Your task to perform on an android device: Install the Starbucks app Image 0: 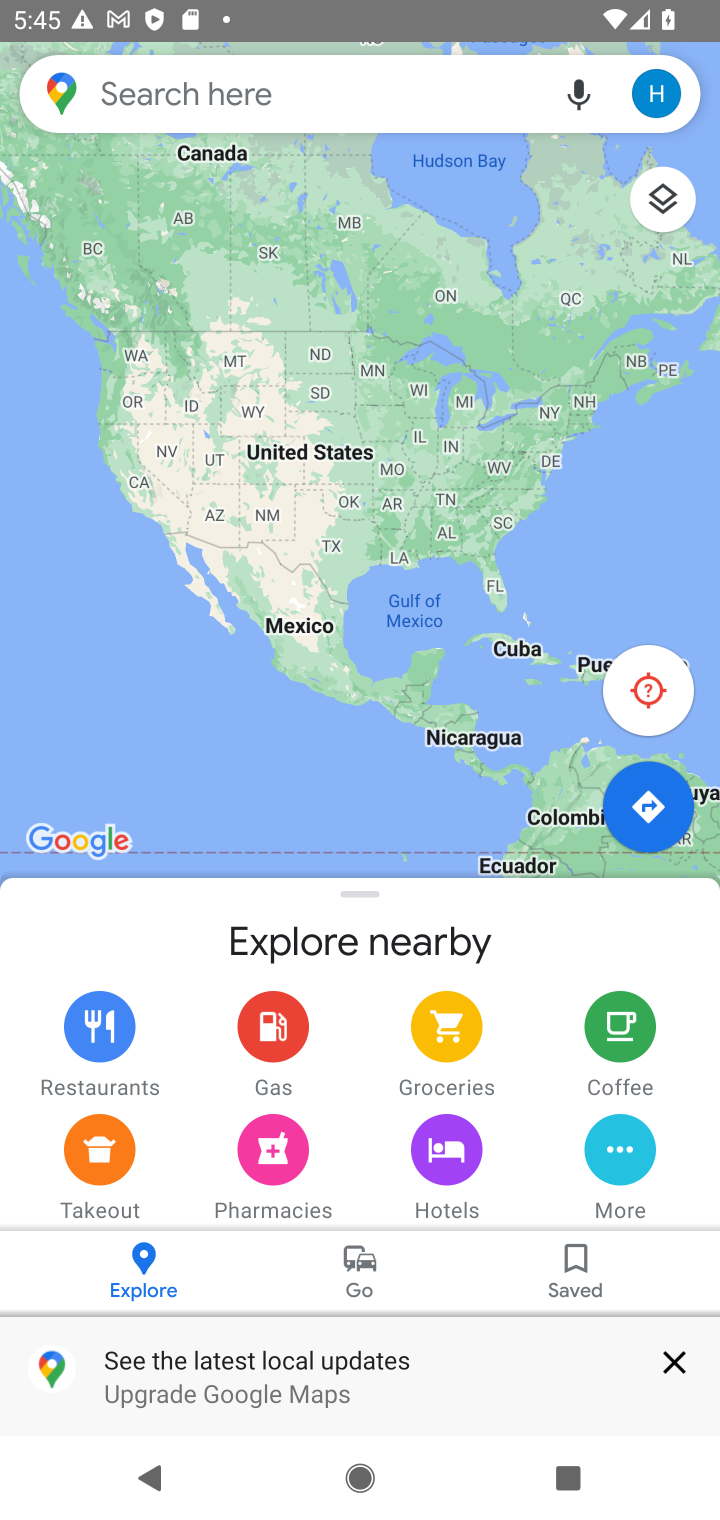
Step 0: press home button
Your task to perform on an android device: Install the Starbucks app Image 1: 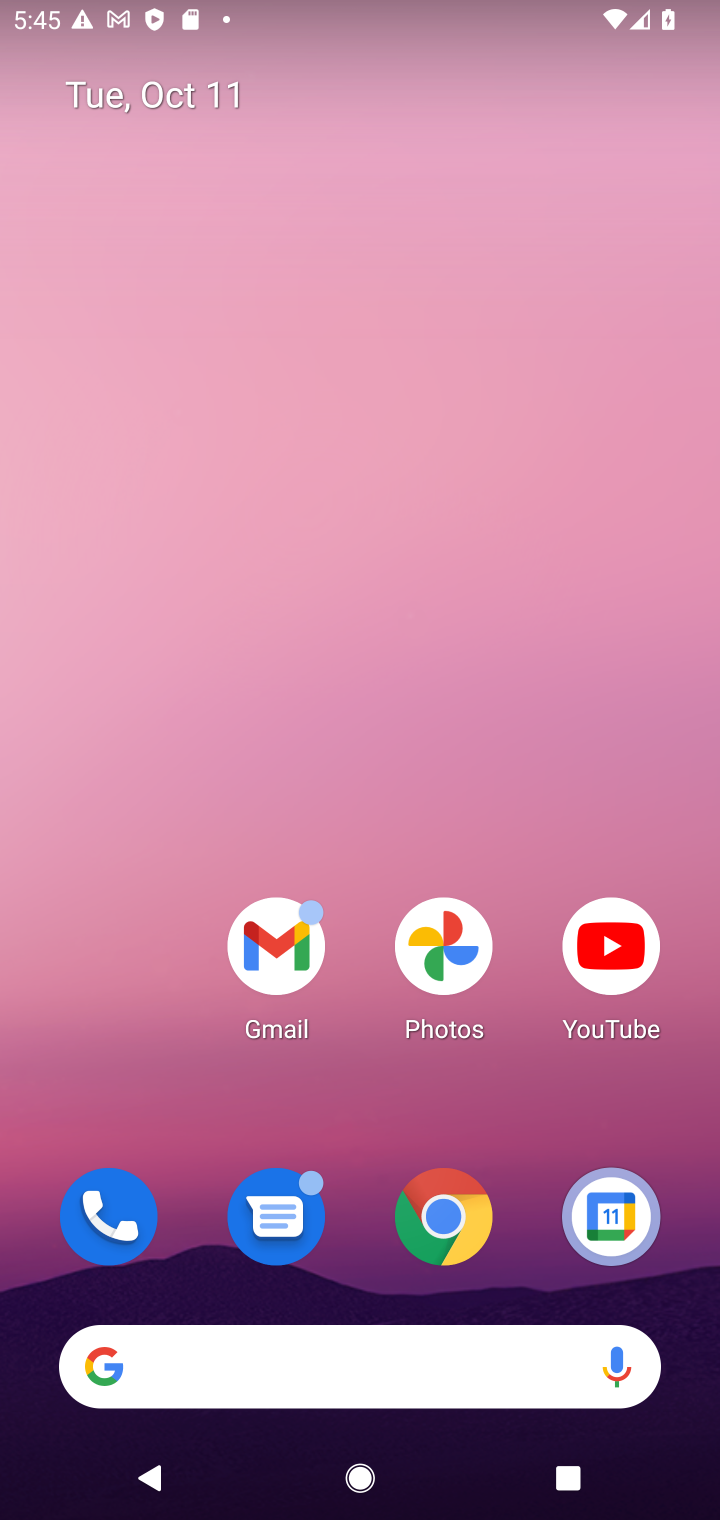
Step 1: drag from (447, 1320) to (314, 235)
Your task to perform on an android device: Install the Starbucks app Image 2: 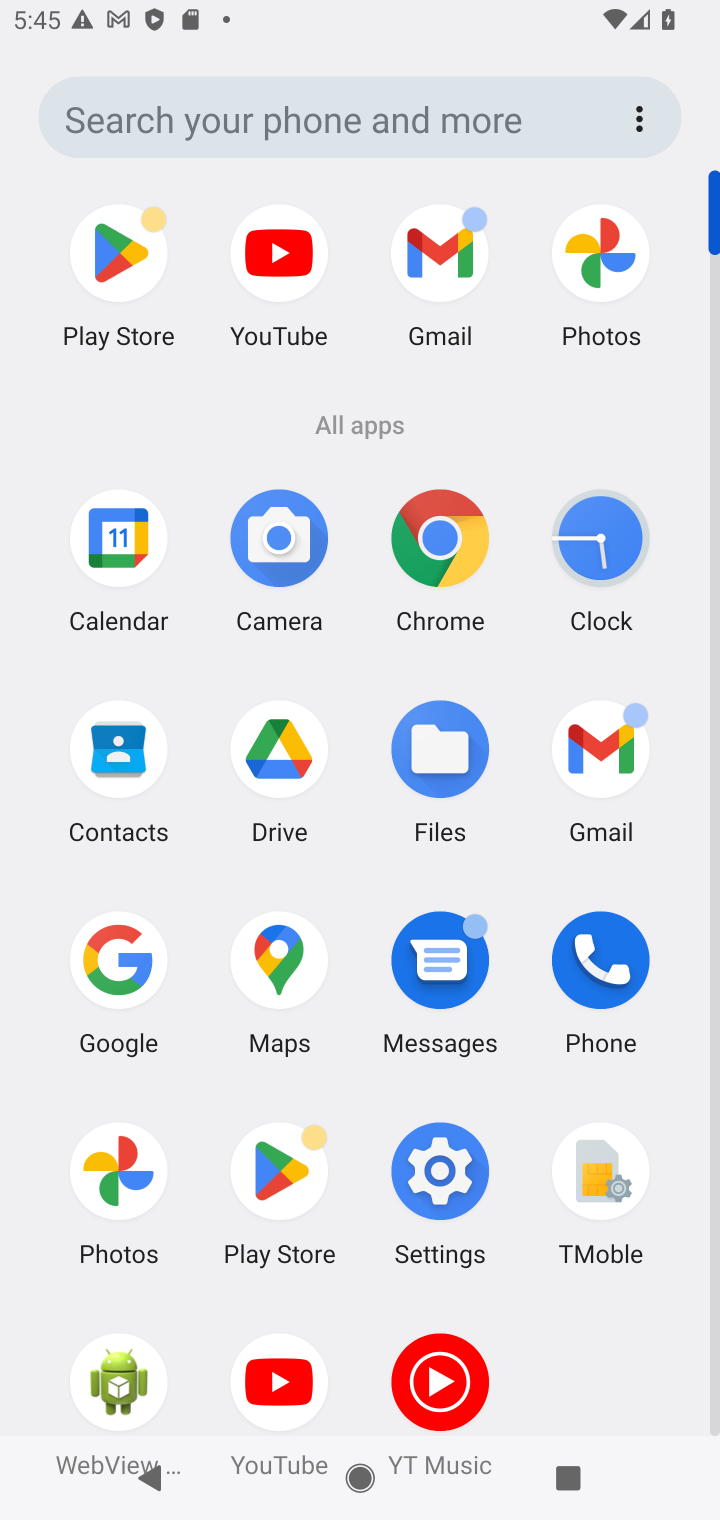
Step 2: click (285, 1175)
Your task to perform on an android device: Install the Starbucks app Image 3: 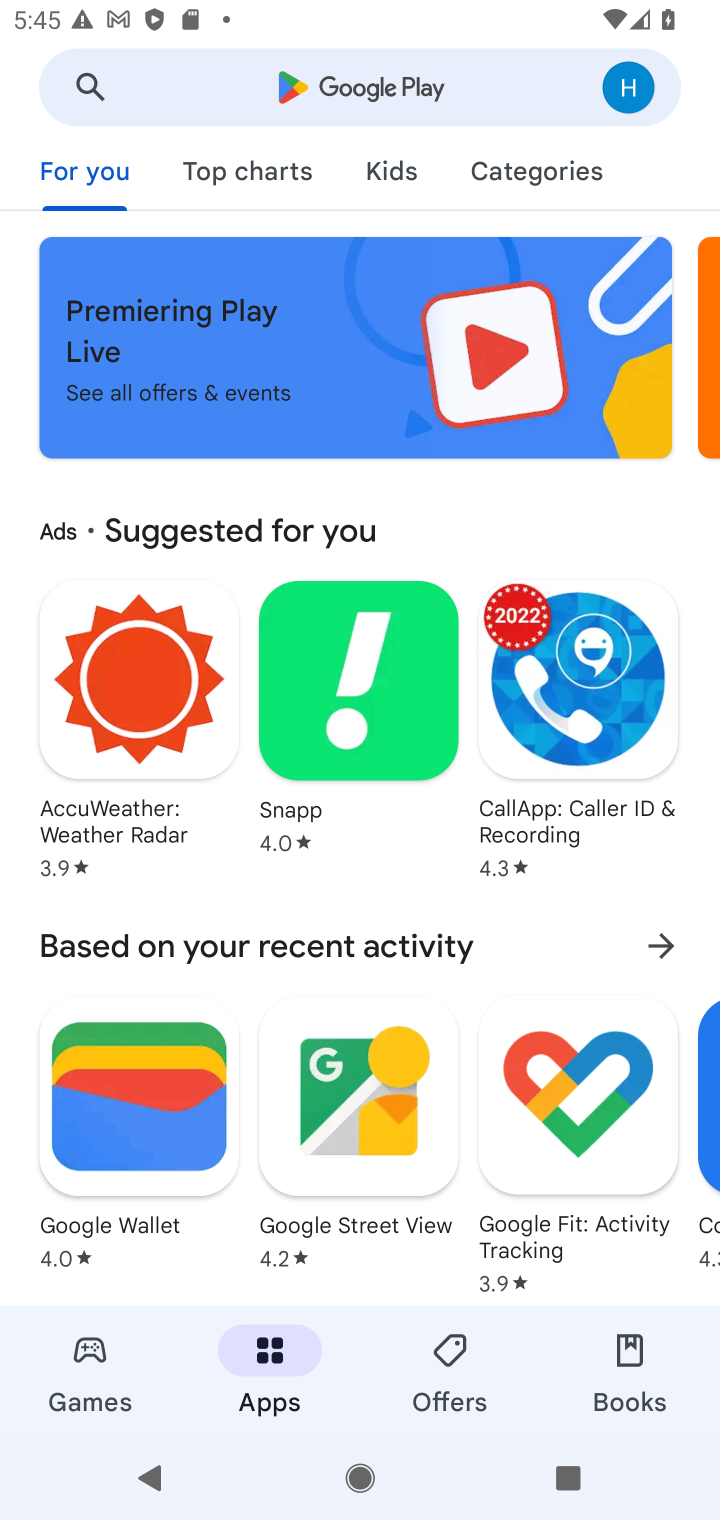
Step 3: click (330, 100)
Your task to perform on an android device: Install the Starbucks app Image 4: 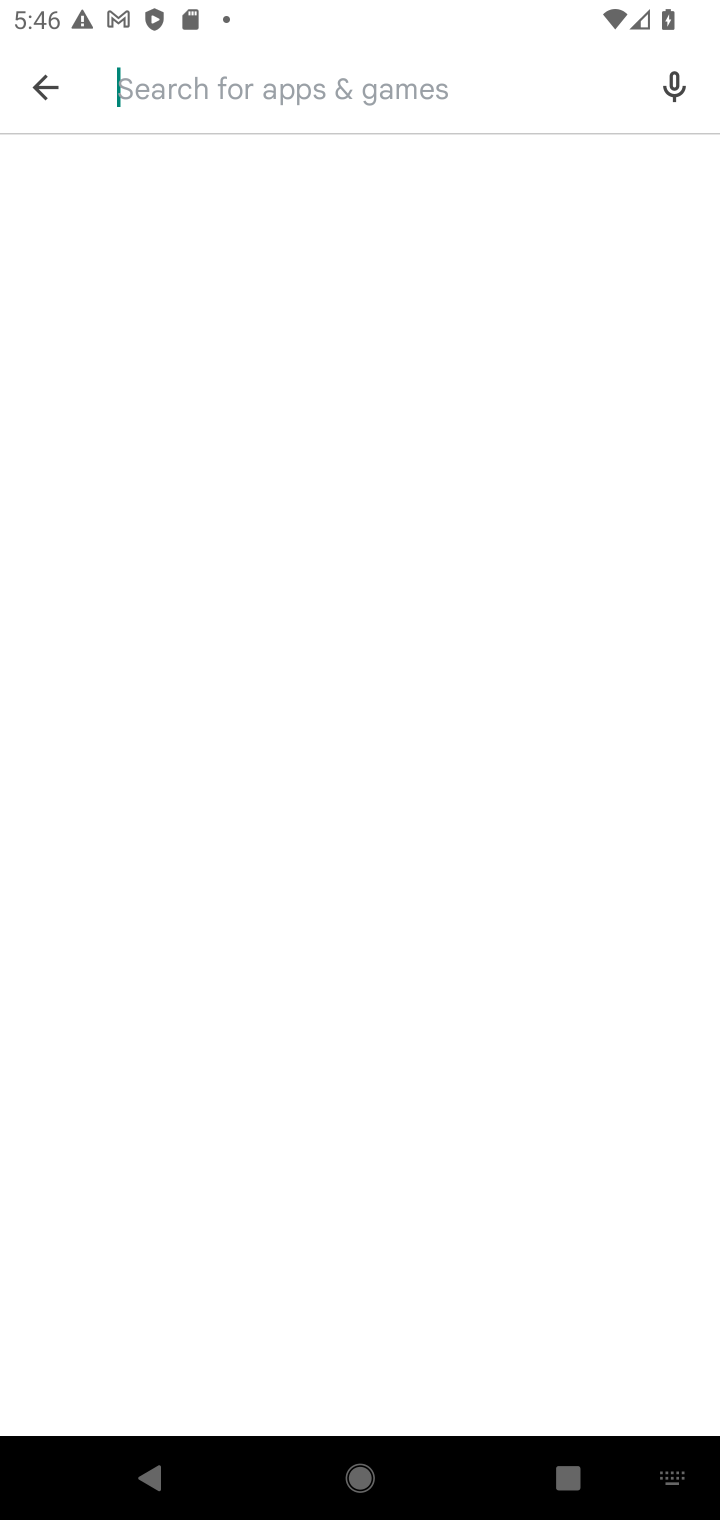
Step 4: type "Starbucks app"
Your task to perform on an android device: Install the Starbucks app Image 5: 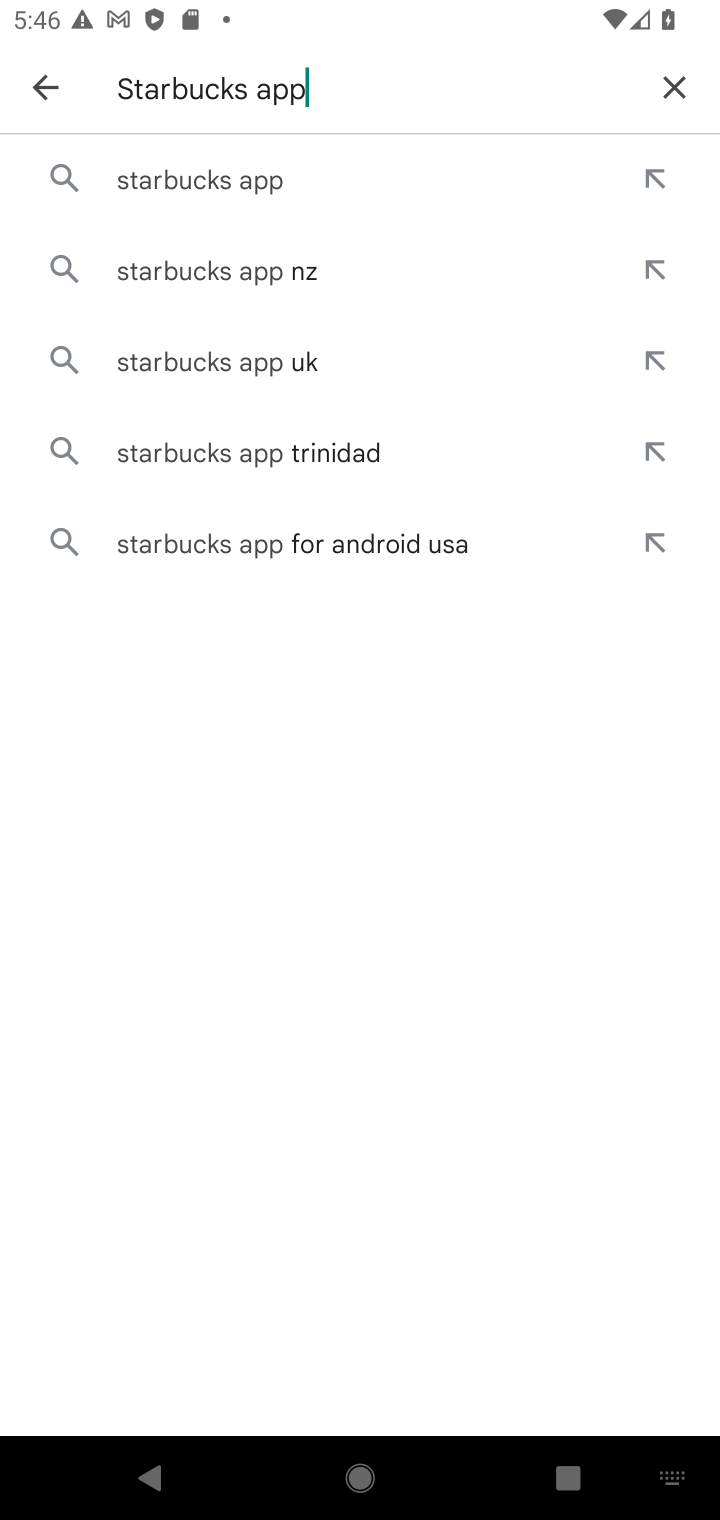
Step 5: click (219, 190)
Your task to perform on an android device: Install the Starbucks app Image 6: 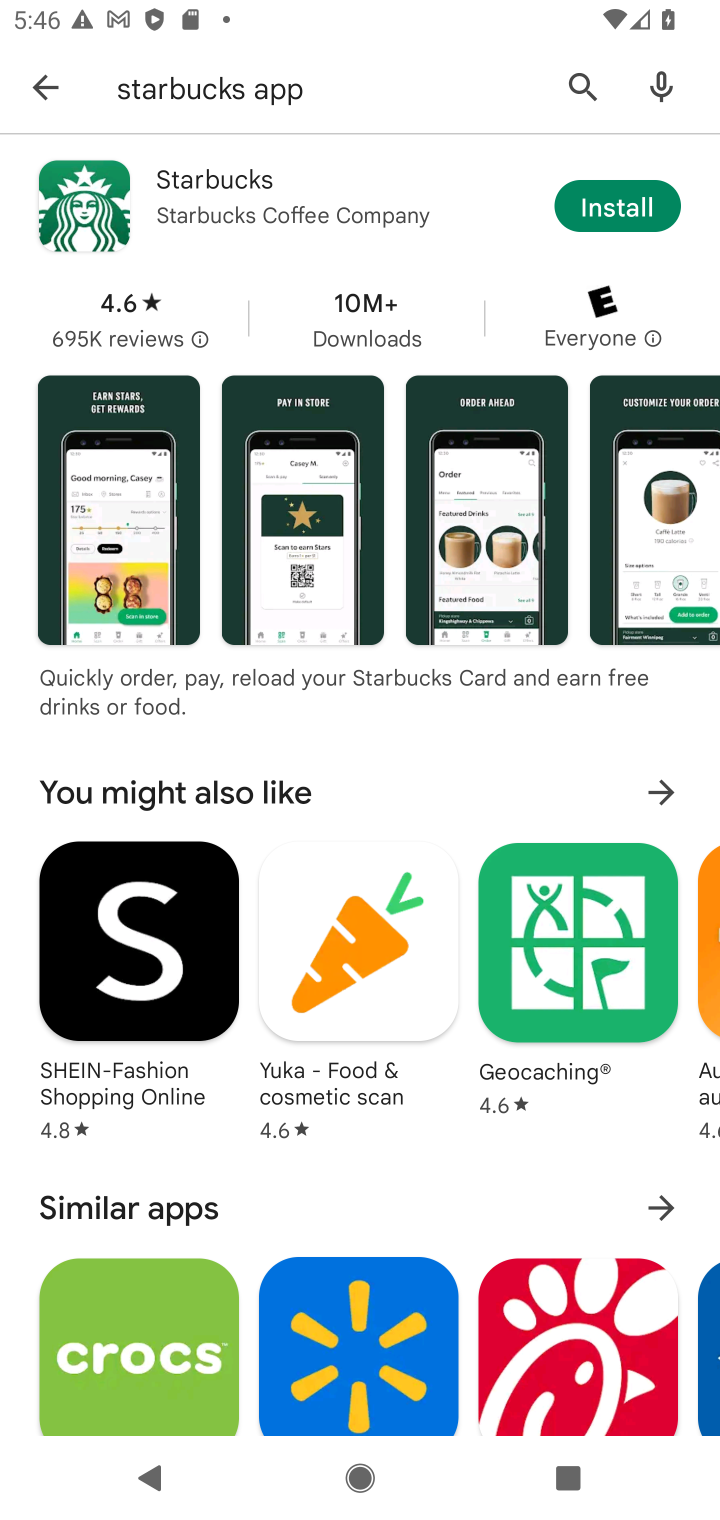
Step 6: click (616, 206)
Your task to perform on an android device: Install the Starbucks app Image 7: 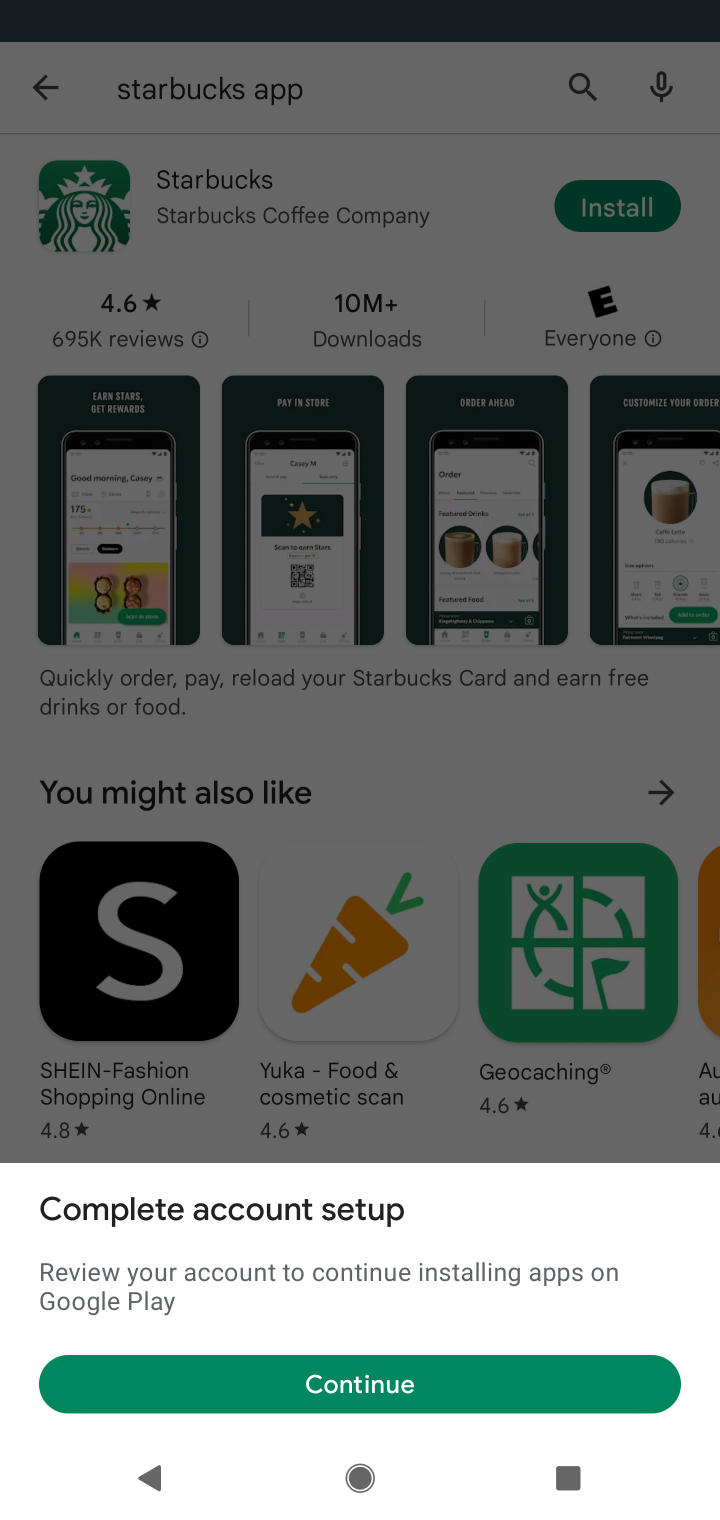
Step 7: click (311, 1378)
Your task to perform on an android device: Install the Starbucks app Image 8: 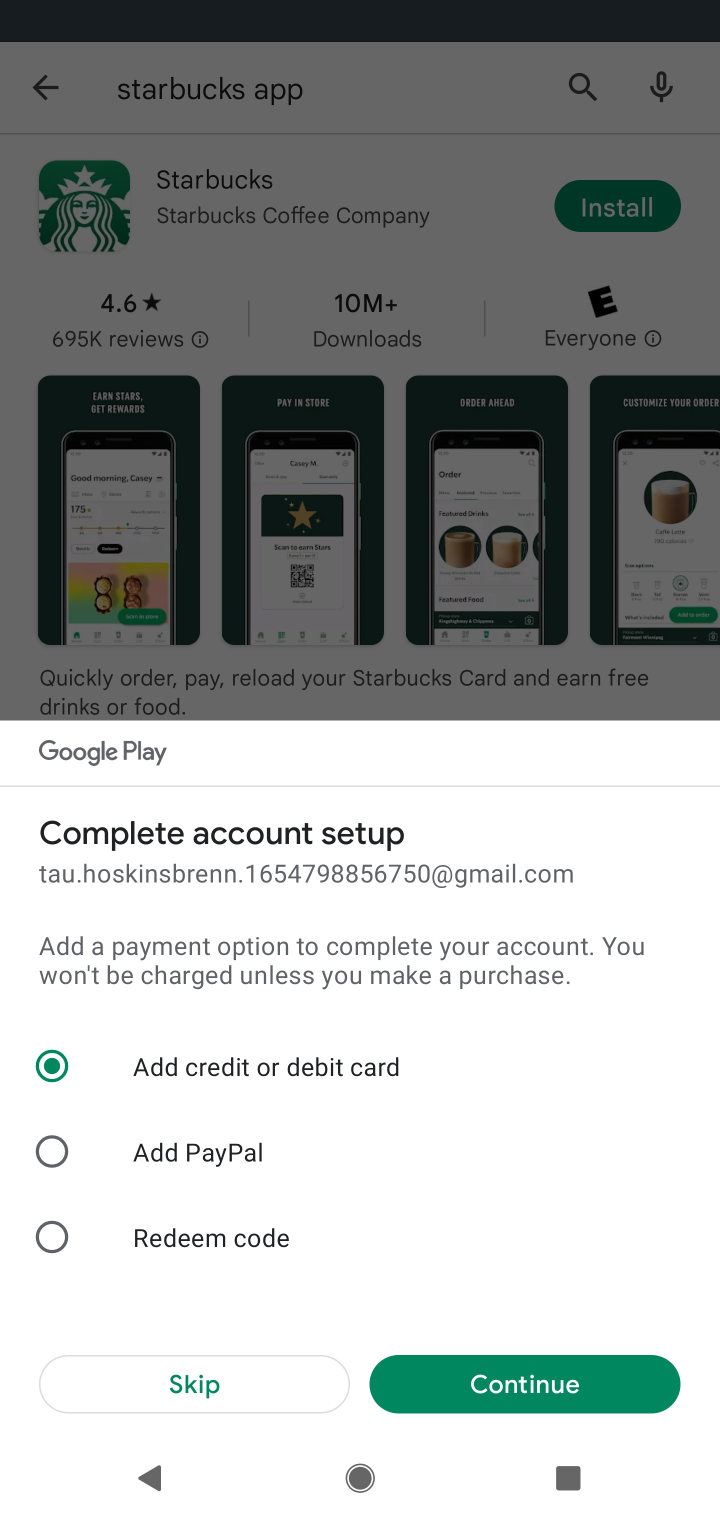
Step 8: click (206, 1368)
Your task to perform on an android device: Install the Starbucks app Image 9: 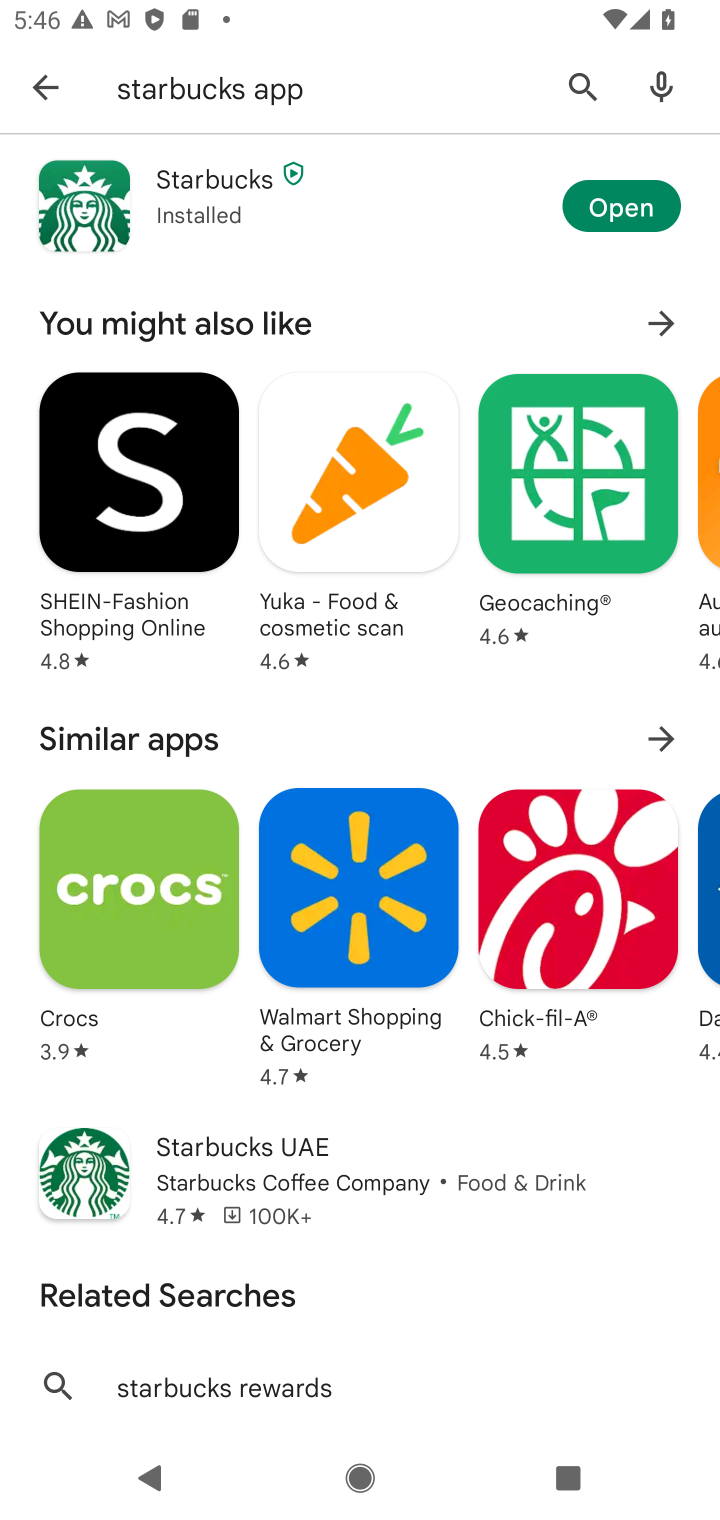
Step 9: task complete